Your task to perform on an android device: turn on notifications settings in the gmail app Image 0: 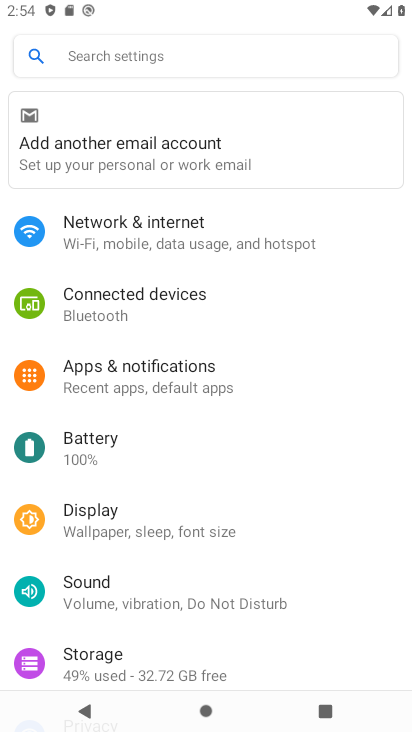
Step 0: press back button
Your task to perform on an android device: turn on notifications settings in the gmail app Image 1: 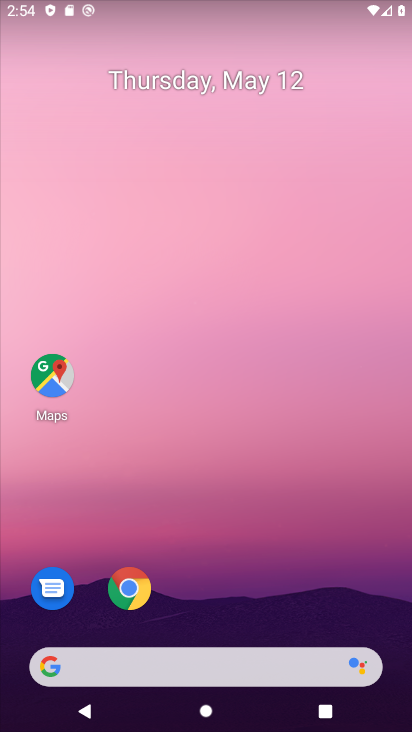
Step 1: drag from (283, 384) to (256, 131)
Your task to perform on an android device: turn on notifications settings in the gmail app Image 2: 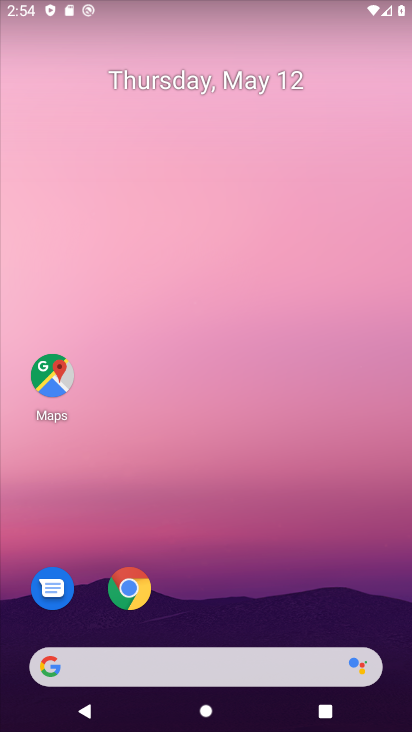
Step 2: drag from (389, 587) to (255, 20)
Your task to perform on an android device: turn on notifications settings in the gmail app Image 3: 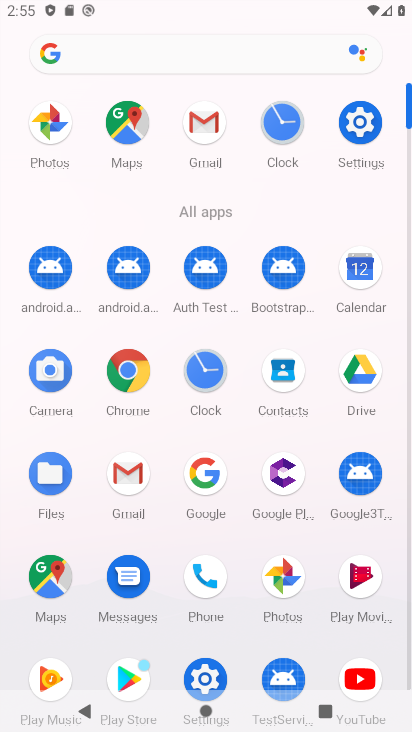
Step 3: drag from (11, 598) to (9, 311)
Your task to perform on an android device: turn on notifications settings in the gmail app Image 4: 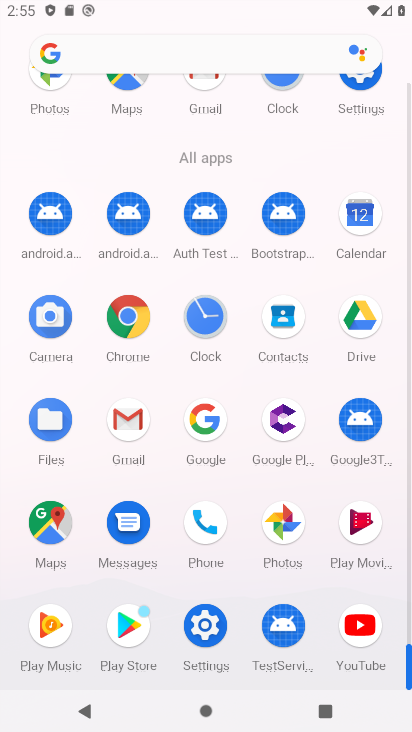
Step 4: click (124, 416)
Your task to perform on an android device: turn on notifications settings in the gmail app Image 5: 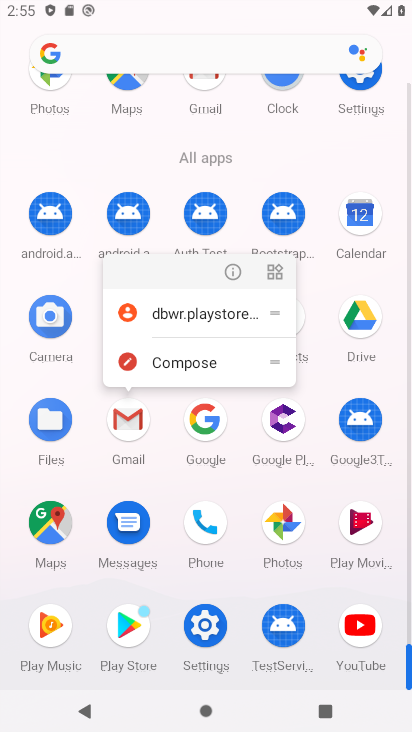
Step 5: click (124, 416)
Your task to perform on an android device: turn on notifications settings in the gmail app Image 6: 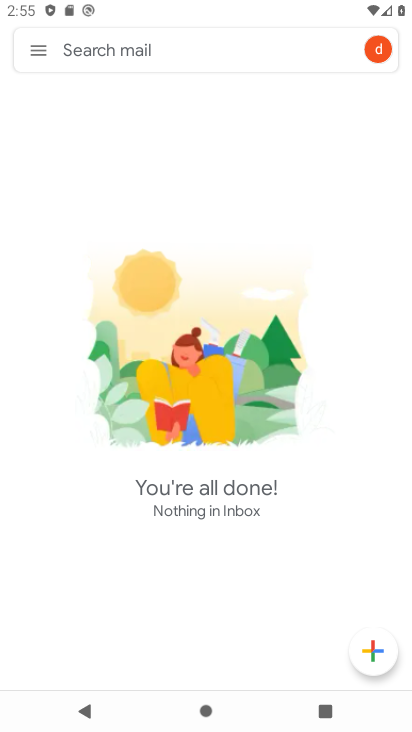
Step 6: click (41, 50)
Your task to perform on an android device: turn on notifications settings in the gmail app Image 7: 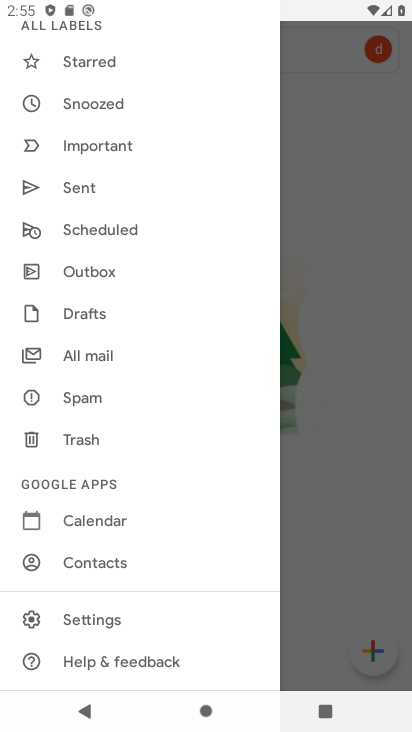
Step 7: click (94, 619)
Your task to perform on an android device: turn on notifications settings in the gmail app Image 8: 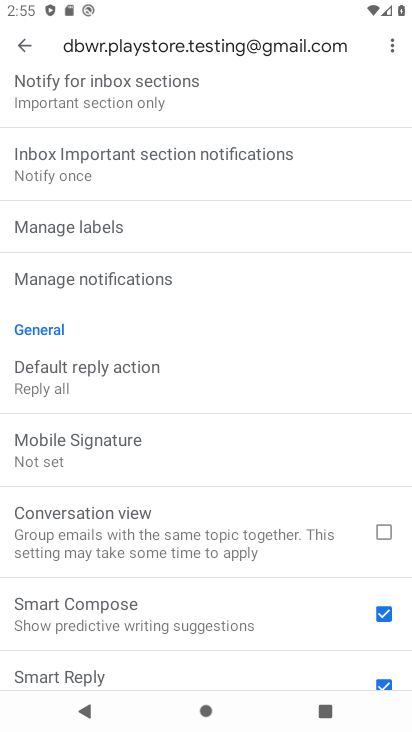
Step 8: click (139, 274)
Your task to perform on an android device: turn on notifications settings in the gmail app Image 9: 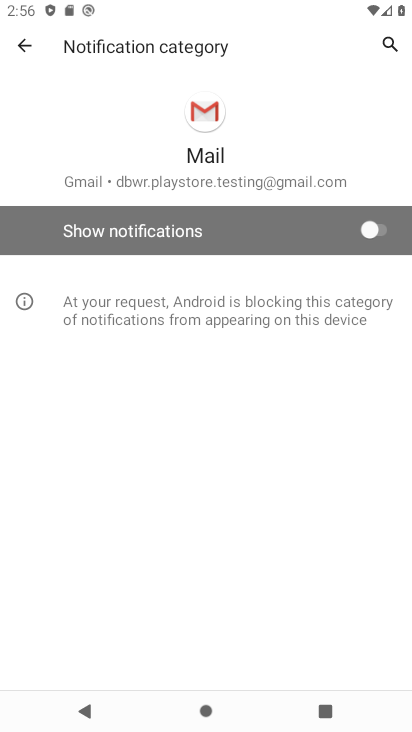
Step 9: click (383, 227)
Your task to perform on an android device: turn on notifications settings in the gmail app Image 10: 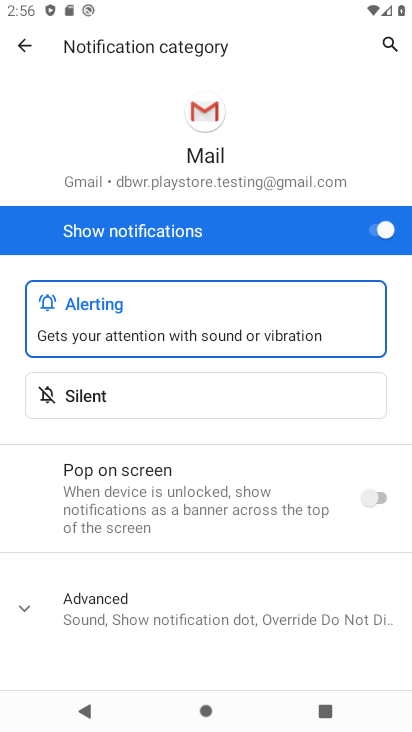
Step 10: task complete